Your task to perform on an android device: Search for Italian restaurants on Maps Image 0: 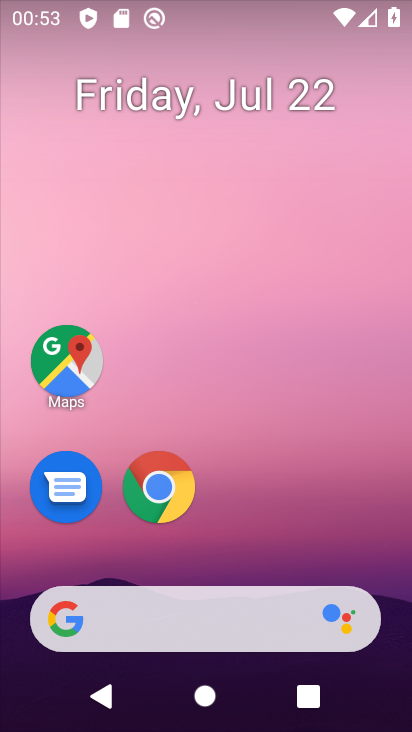
Step 0: click (68, 349)
Your task to perform on an android device: Search for Italian restaurants on Maps Image 1: 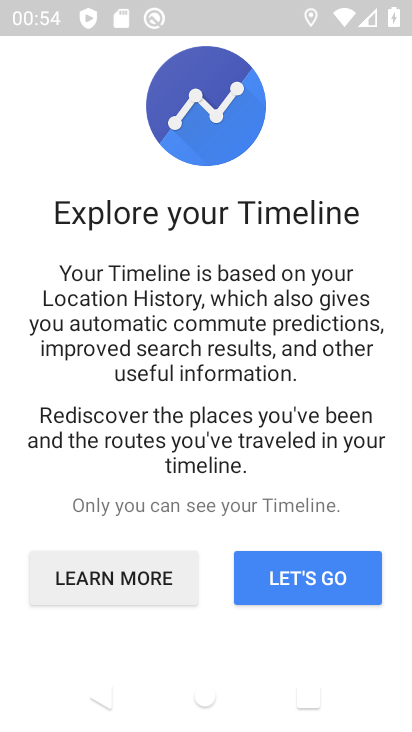
Step 1: click (314, 572)
Your task to perform on an android device: Search for Italian restaurants on Maps Image 2: 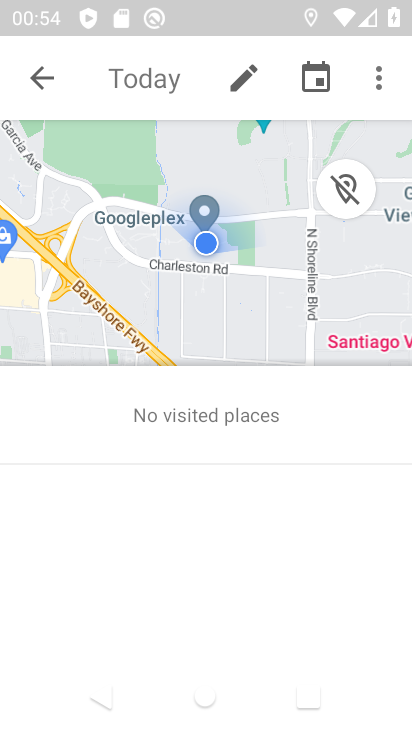
Step 2: click (38, 64)
Your task to perform on an android device: Search for Italian restaurants on Maps Image 3: 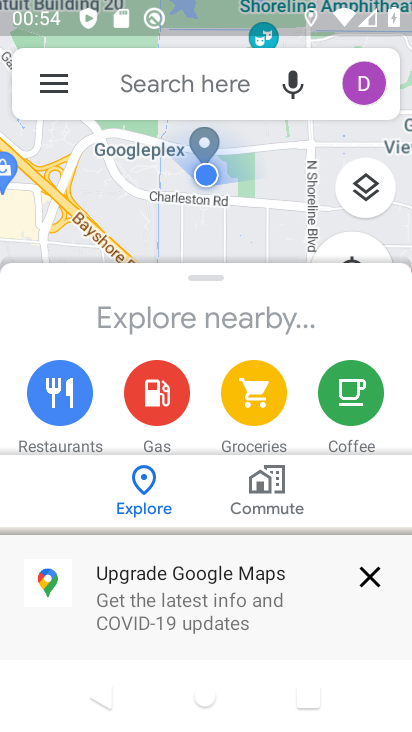
Step 3: click (150, 83)
Your task to perform on an android device: Search for Italian restaurants on Maps Image 4: 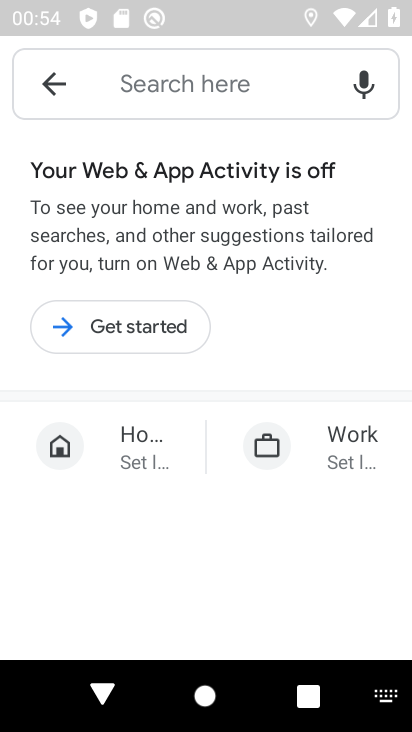
Step 4: drag from (162, 578) to (254, 74)
Your task to perform on an android device: Search for Italian restaurants on Maps Image 5: 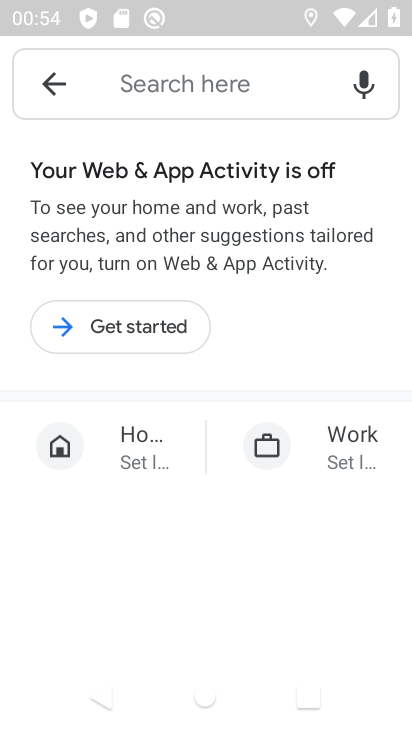
Step 5: click (167, 80)
Your task to perform on an android device: Search for Italian restaurants on Maps Image 6: 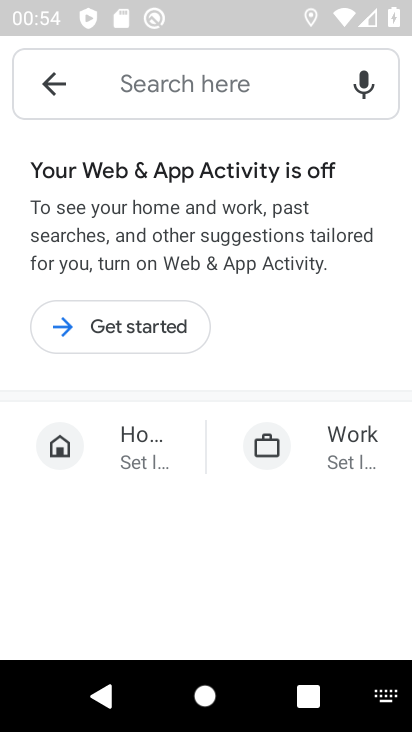
Step 6: type "italian restaurants"
Your task to perform on an android device: Search for Italian restaurants on Maps Image 7: 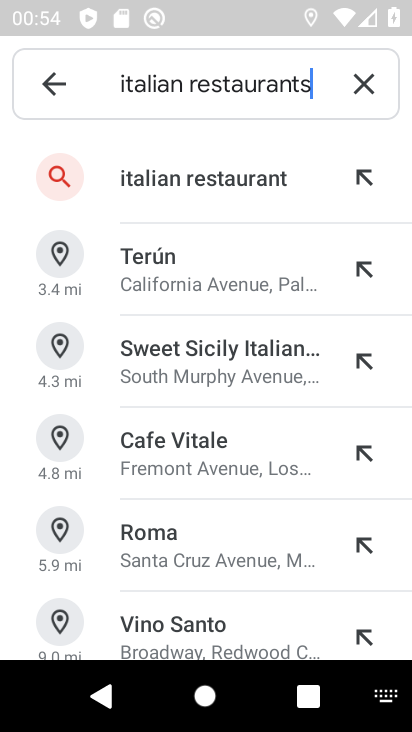
Step 7: click (212, 172)
Your task to perform on an android device: Search for Italian restaurants on Maps Image 8: 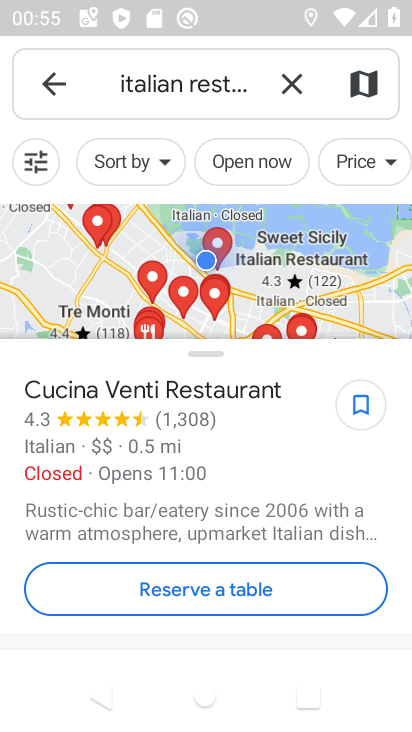
Step 8: task complete